Your task to perform on an android device: set the stopwatch Image 0: 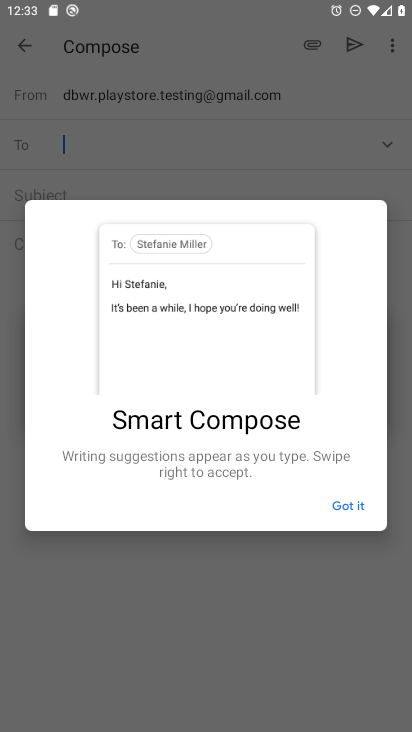
Step 0: press home button
Your task to perform on an android device: set the stopwatch Image 1: 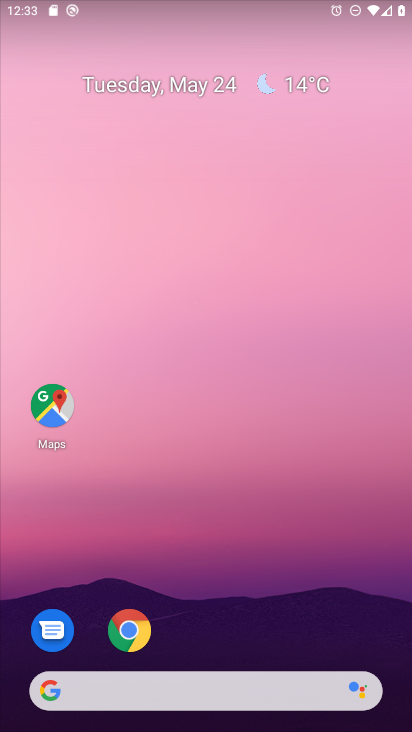
Step 1: drag from (322, 438) to (284, 80)
Your task to perform on an android device: set the stopwatch Image 2: 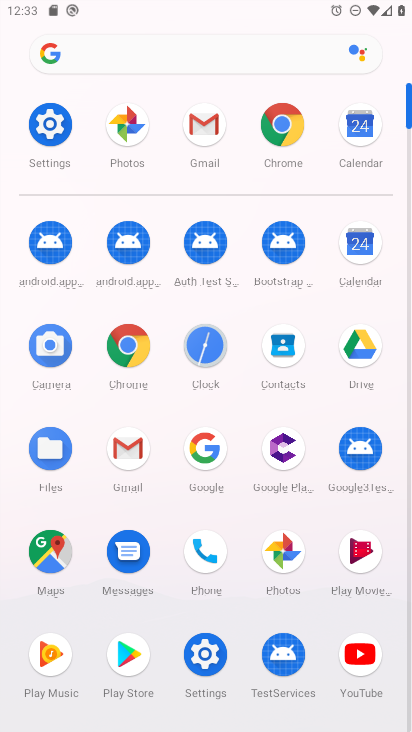
Step 2: click (190, 346)
Your task to perform on an android device: set the stopwatch Image 3: 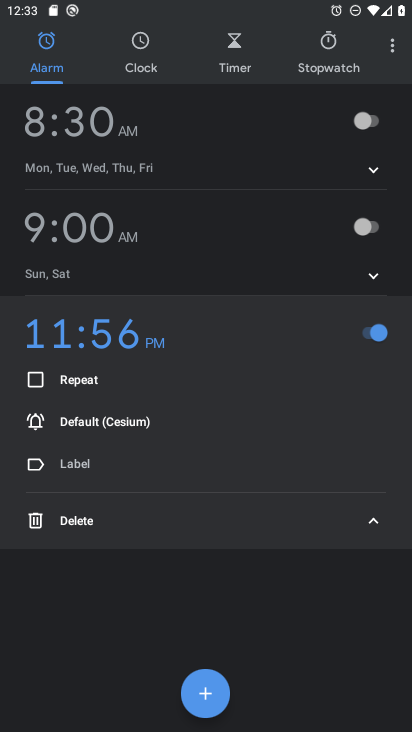
Step 3: click (334, 54)
Your task to perform on an android device: set the stopwatch Image 4: 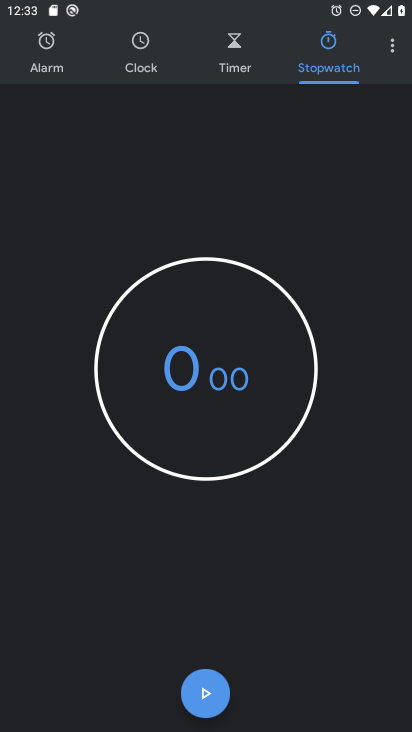
Step 4: click (205, 696)
Your task to perform on an android device: set the stopwatch Image 5: 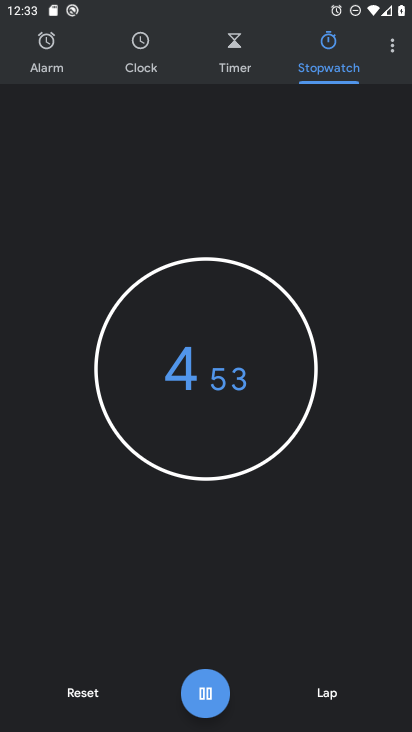
Step 5: click (207, 697)
Your task to perform on an android device: set the stopwatch Image 6: 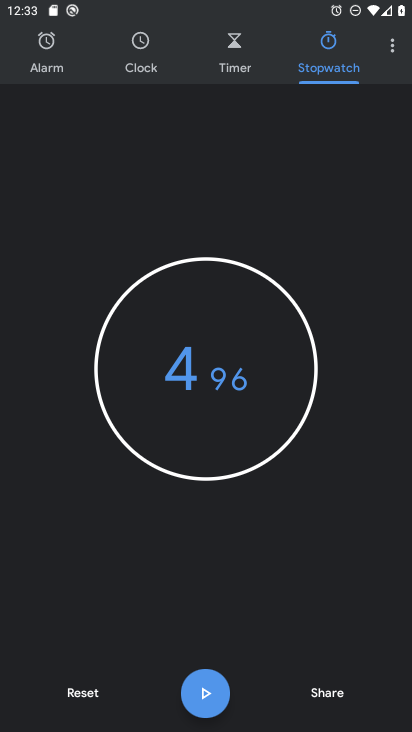
Step 6: task complete